Your task to perform on an android device: Open Google Maps Image 0: 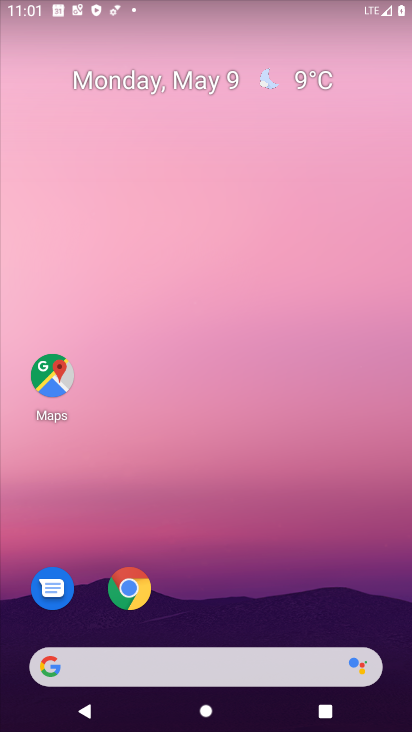
Step 0: press home button
Your task to perform on an android device: Open Google Maps Image 1: 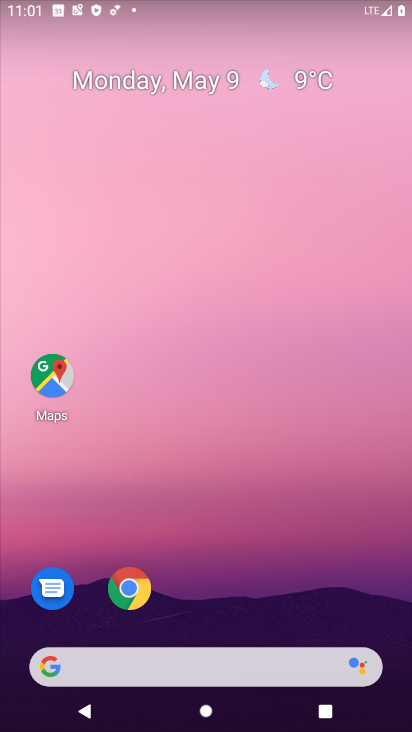
Step 1: drag from (128, 655) to (248, 127)
Your task to perform on an android device: Open Google Maps Image 2: 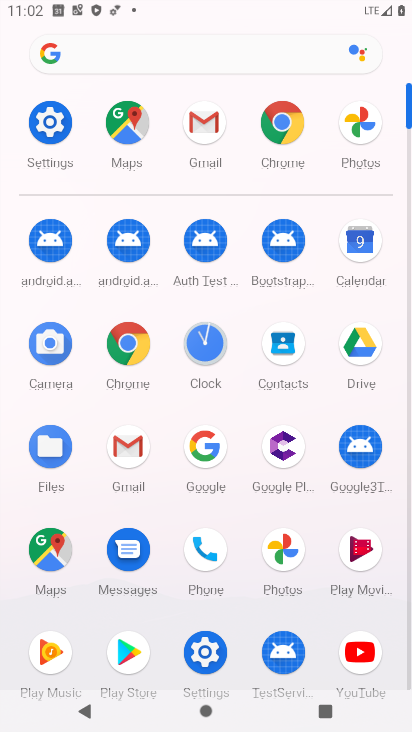
Step 2: click (124, 137)
Your task to perform on an android device: Open Google Maps Image 3: 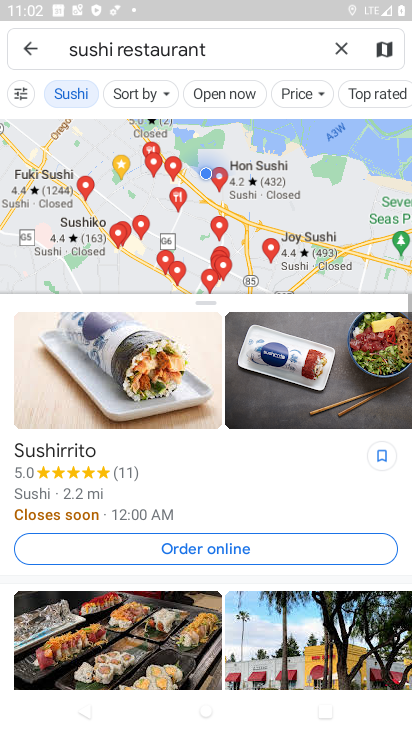
Step 3: click (31, 47)
Your task to perform on an android device: Open Google Maps Image 4: 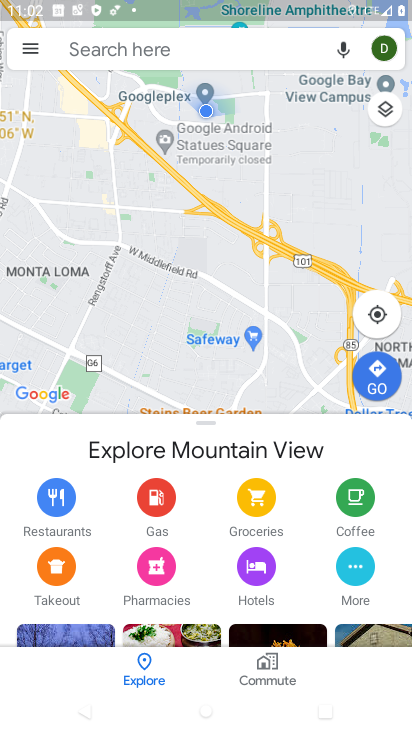
Step 4: task complete